Your task to perform on an android device: Install the Amazon app Image 0: 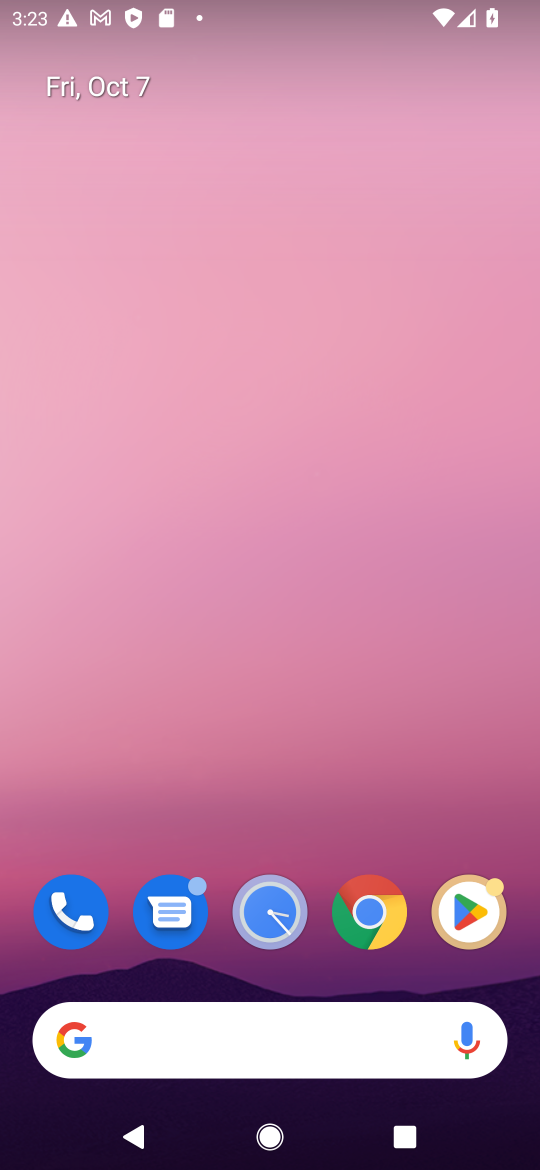
Step 0: drag from (353, 977) to (357, 169)
Your task to perform on an android device: Install the Amazon app Image 1: 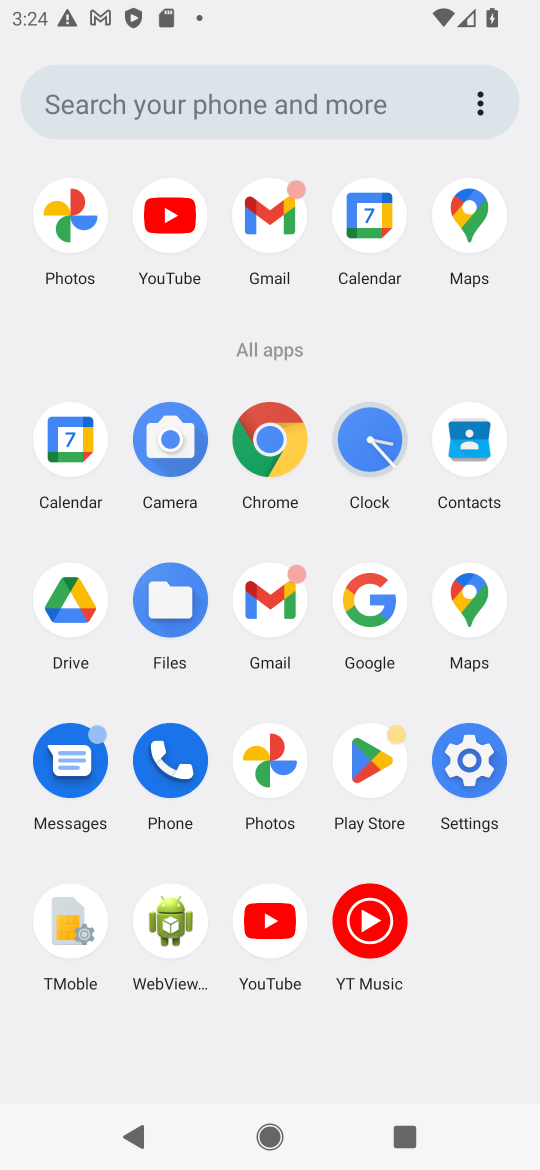
Step 1: click (359, 751)
Your task to perform on an android device: Install the Amazon app Image 2: 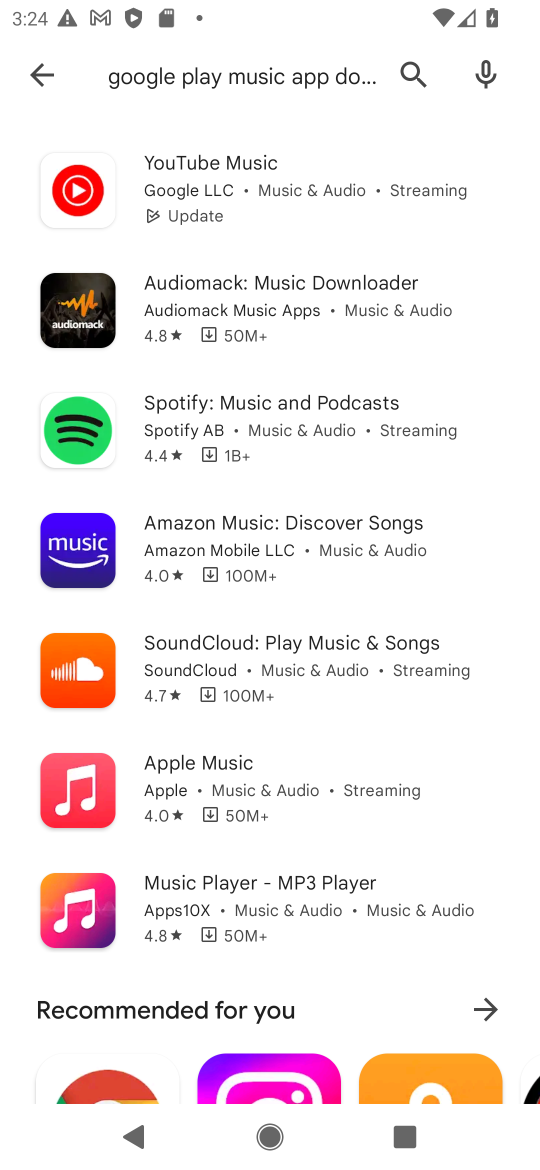
Step 2: click (60, 60)
Your task to perform on an android device: Install the Amazon app Image 3: 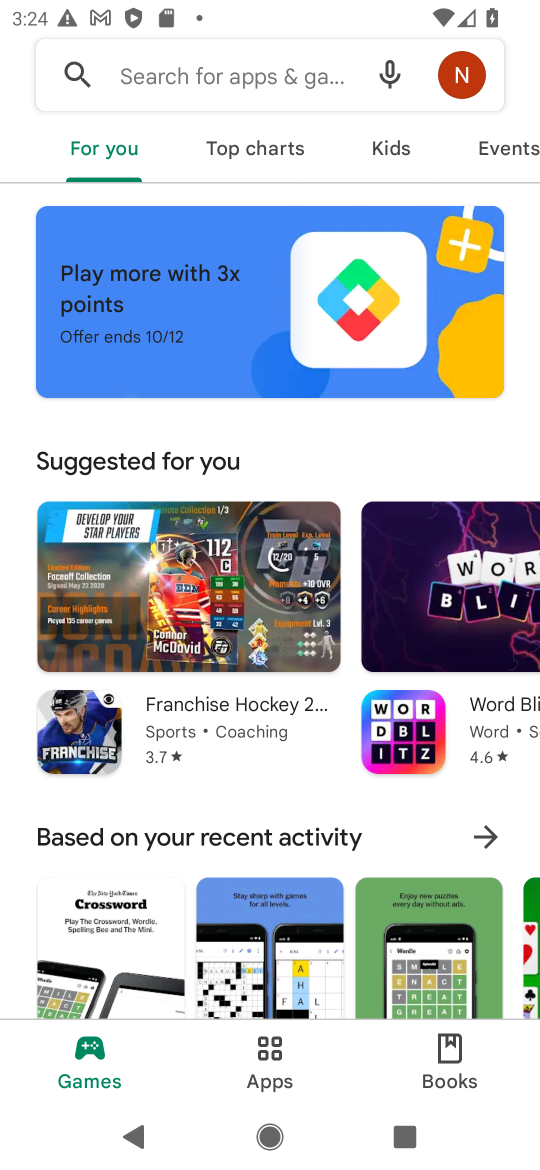
Step 3: click (173, 69)
Your task to perform on an android device: Install the Amazon app Image 4: 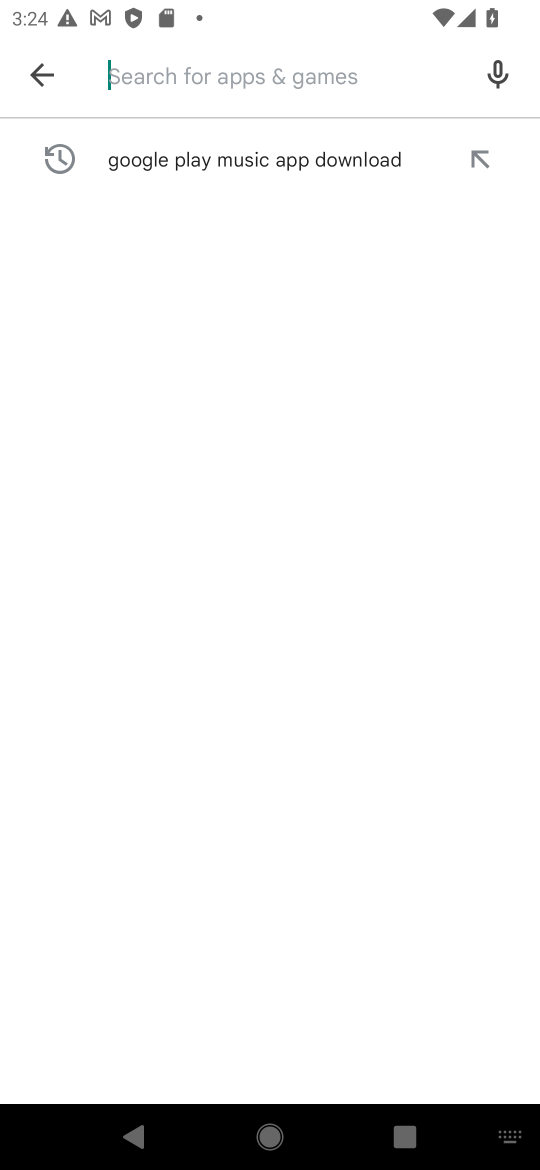
Step 4: type " Amazon app "
Your task to perform on an android device: Install the Amazon app Image 5: 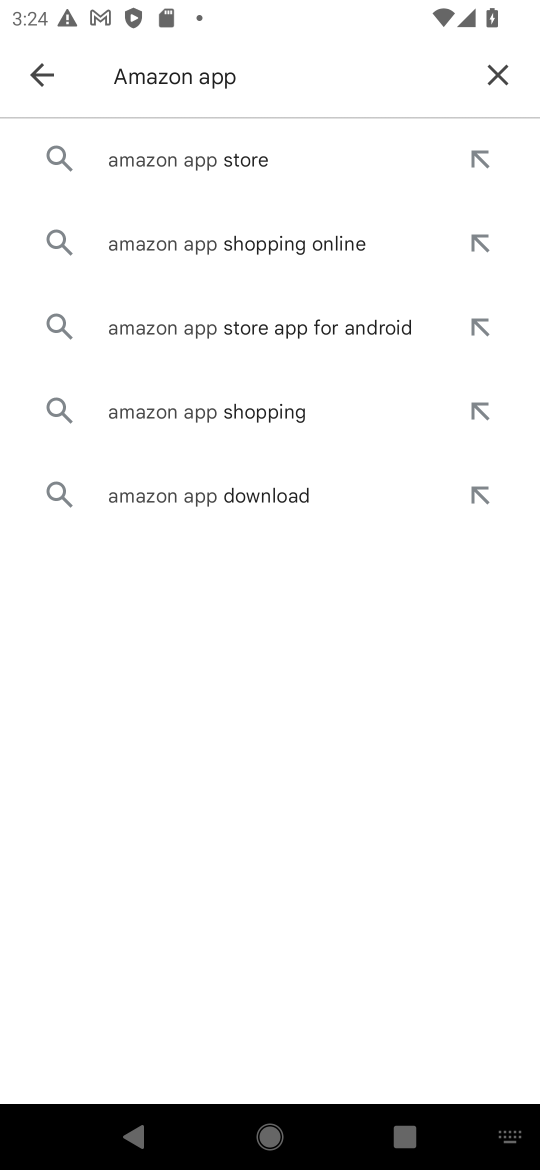
Step 5: click (327, 154)
Your task to perform on an android device: Install the Amazon app Image 6: 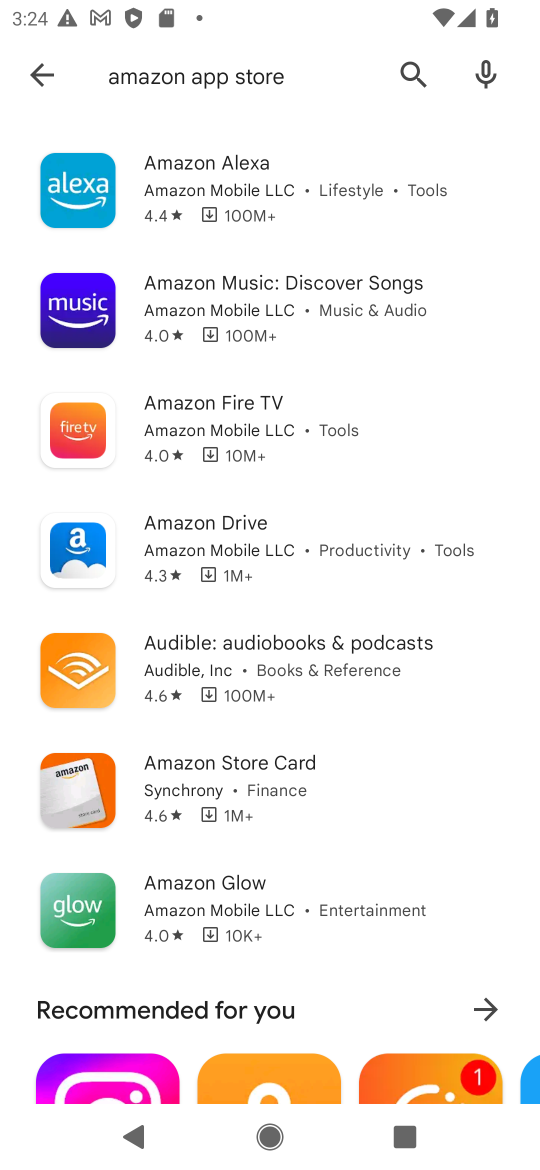
Step 6: click (415, 57)
Your task to perform on an android device: Install the Amazon app Image 7: 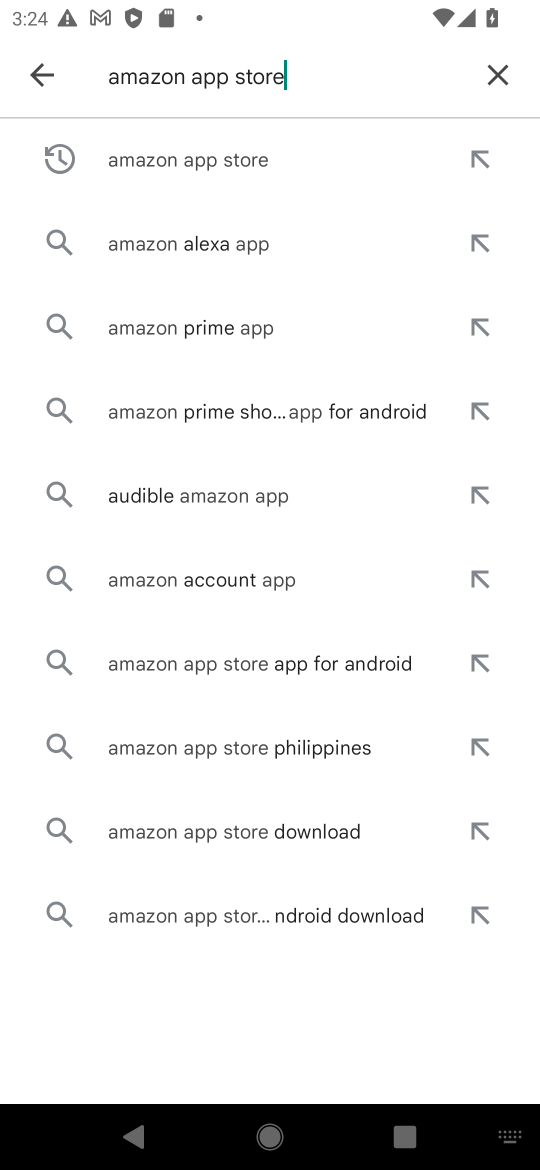
Step 7: click (229, 155)
Your task to perform on an android device: Install the Amazon app Image 8: 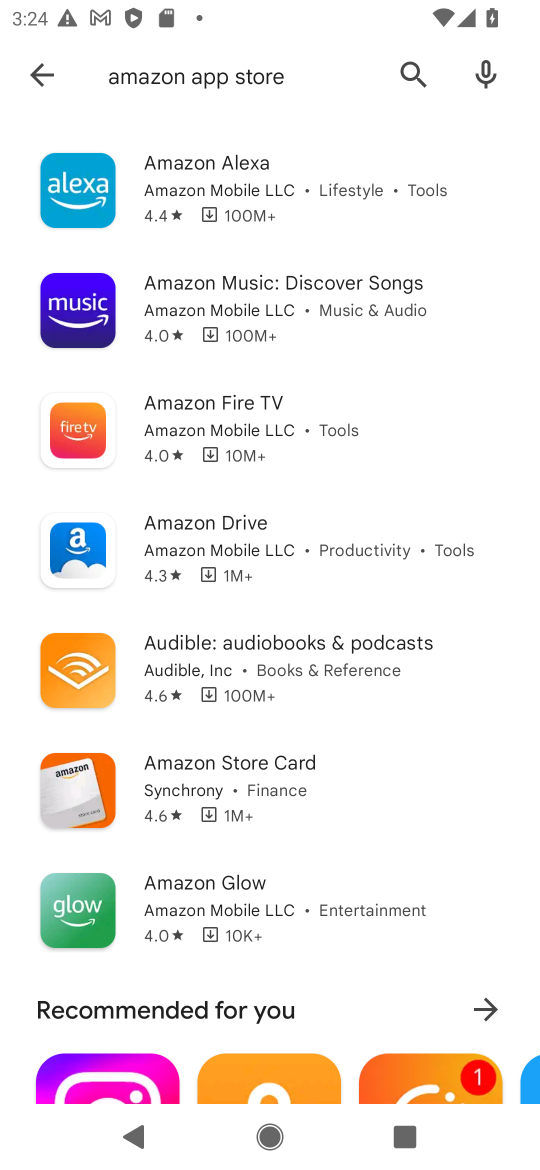
Step 8: drag from (243, 765) to (319, 341)
Your task to perform on an android device: Install the Amazon app Image 9: 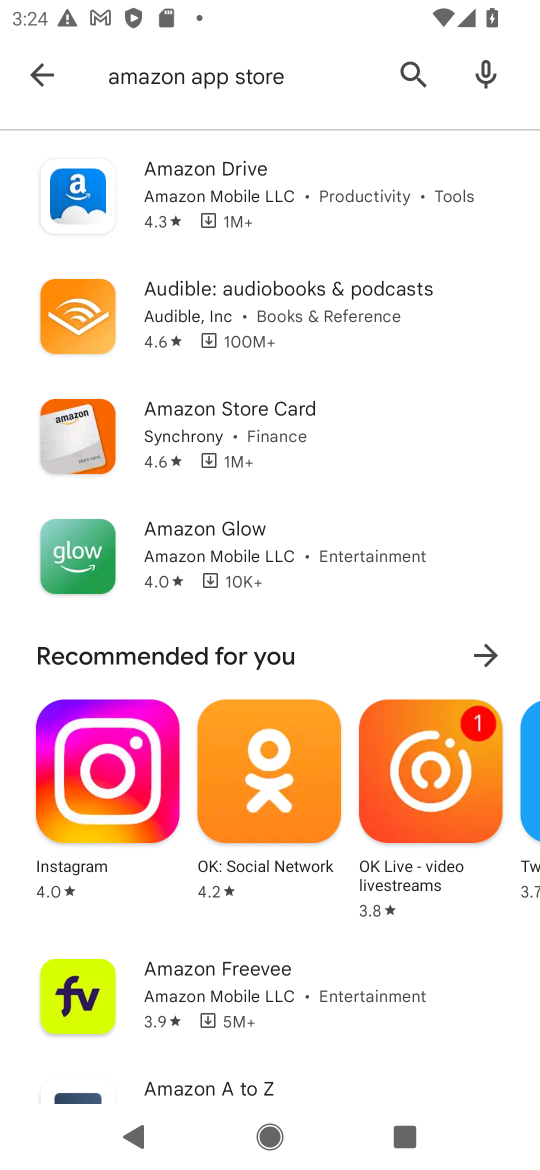
Step 9: click (413, 54)
Your task to perform on an android device: Install the Amazon app Image 10: 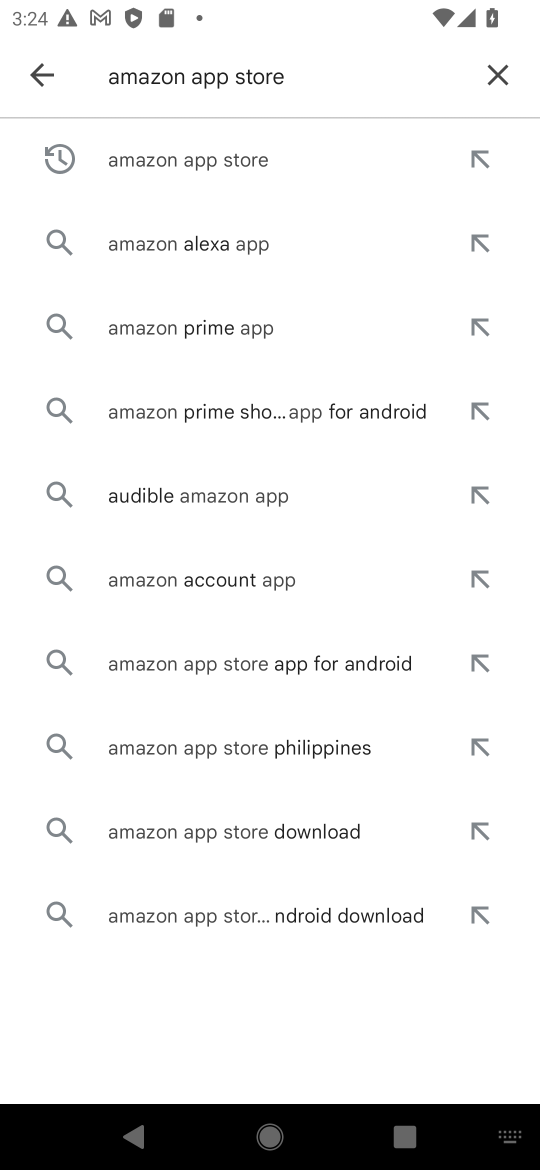
Step 10: click (238, 407)
Your task to perform on an android device: Install the Amazon app Image 11: 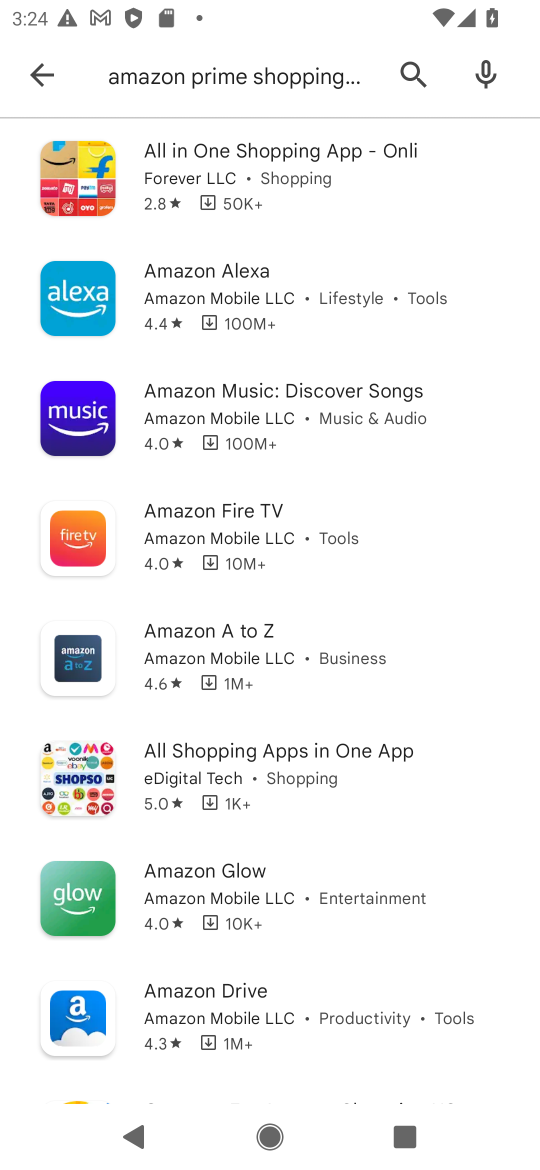
Step 11: click (241, 178)
Your task to perform on an android device: Install the Amazon app Image 12: 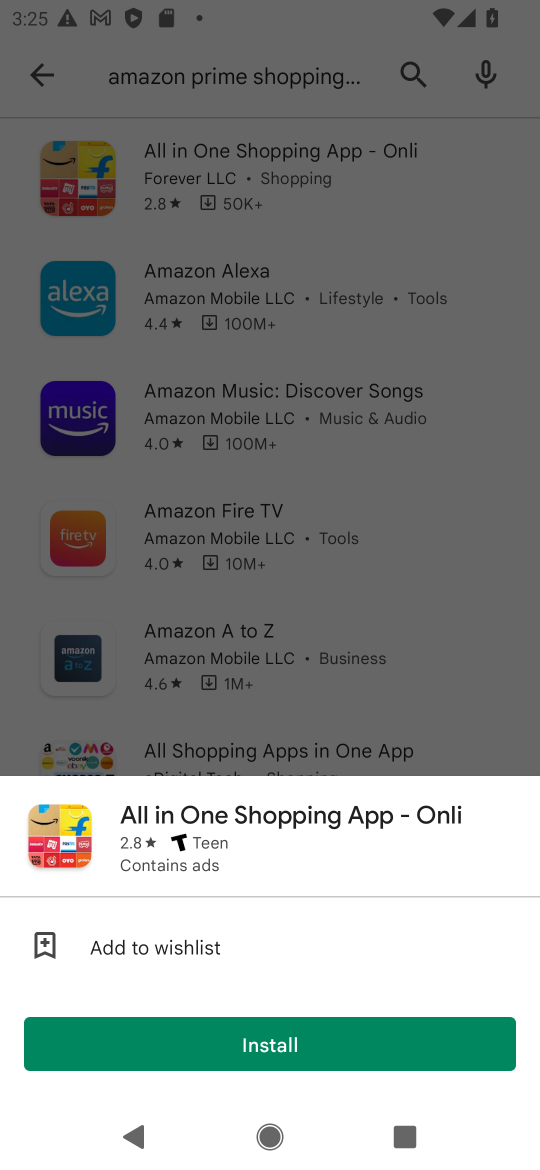
Step 12: click (465, 126)
Your task to perform on an android device: Install the Amazon app Image 13: 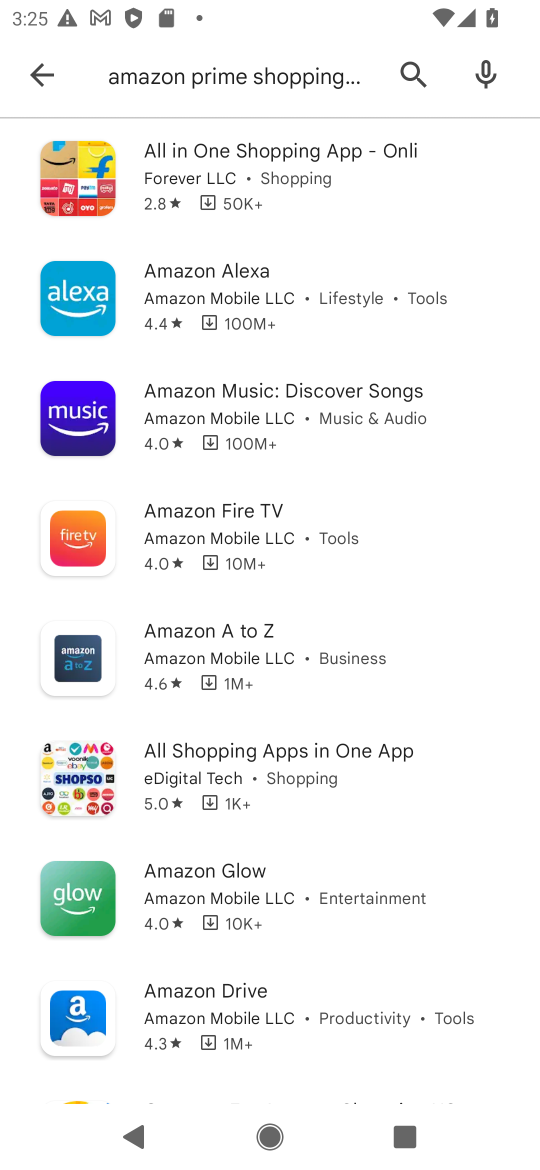
Step 13: click (398, 65)
Your task to perform on an android device: Install the Amazon app Image 14: 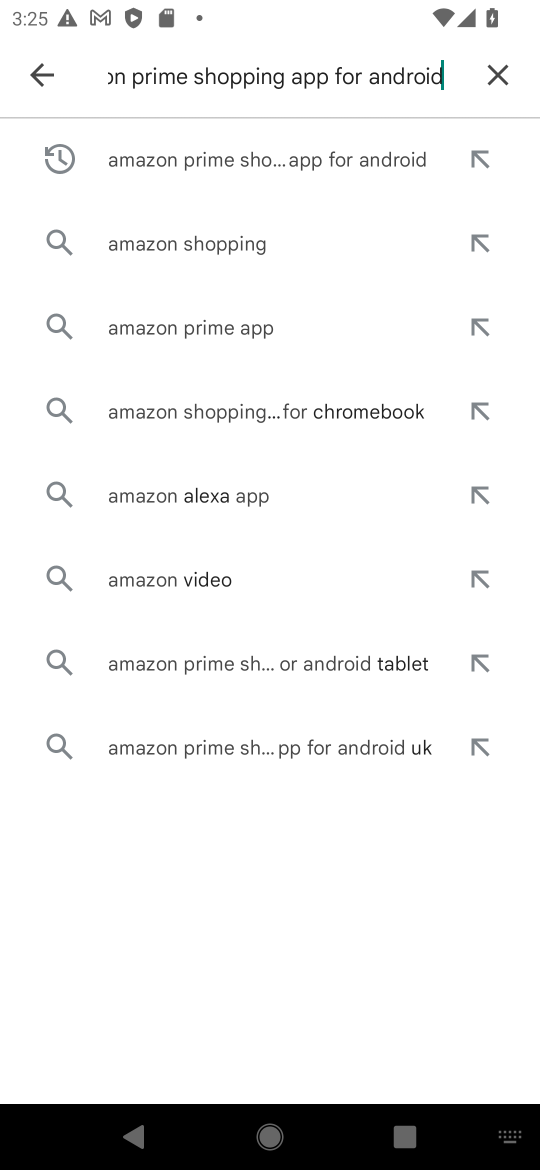
Step 14: click (493, 75)
Your task to perform on an android device: Install the Amazon app Image 15: 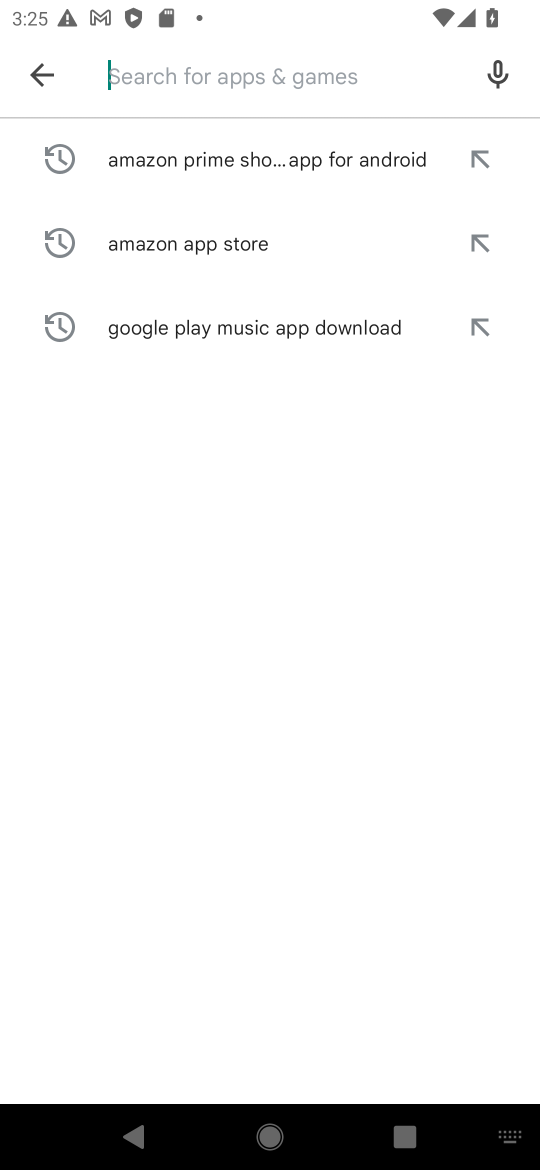
Step 15: click (239, 84)
Your task to perform on an android device: Install the Amazon app Image 16: 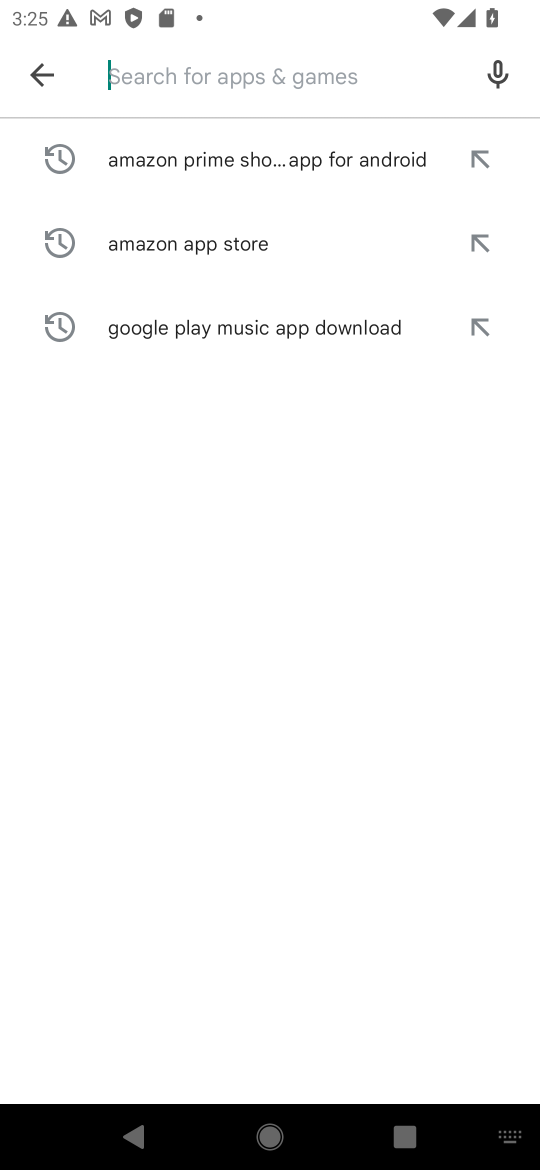
Step 16: type " Amazon "
Your task to perform on an android device: Install the Amazon app Image 17: 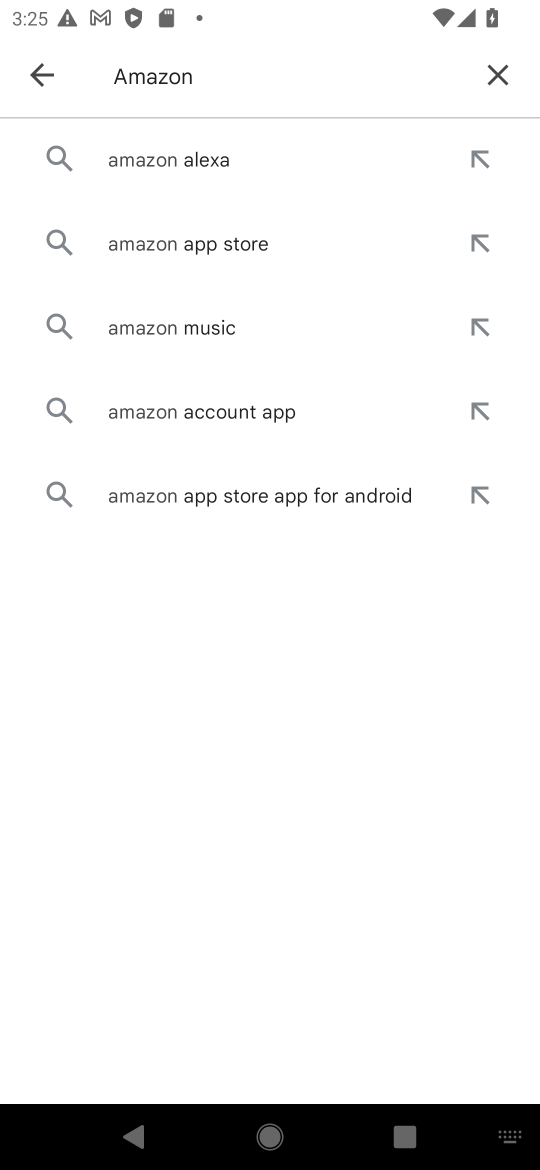
Step 17: click (172, 244)
Your task to perform on an android device: Install the Amazon app Image 18: 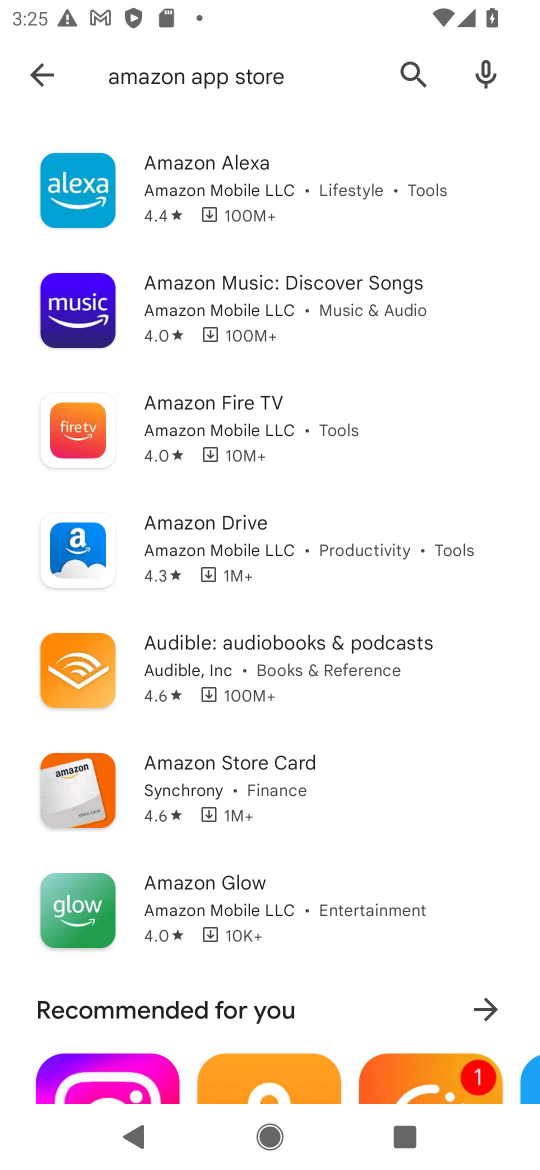
Step 18: click (235, 779)
Your task to perform on an android device: Install the Amazon app Image 19: 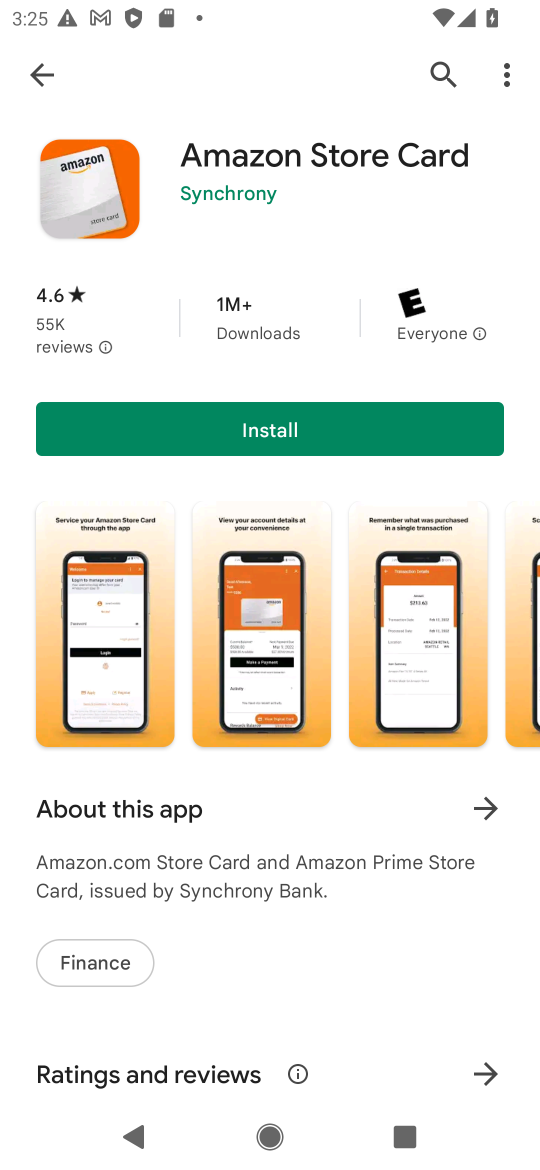
Step 19: click (260, 407)
Your task to perform on an android device: Install the Amazon app Image 20: 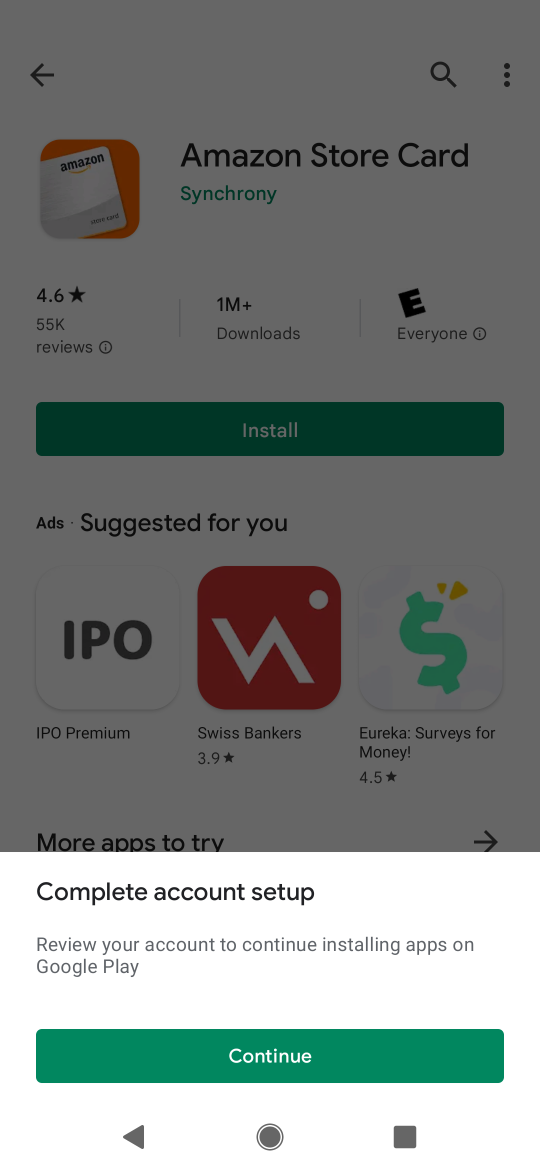
Step 20: task complete